Your task to perform on an android device: open device folders in google photos Image 0: 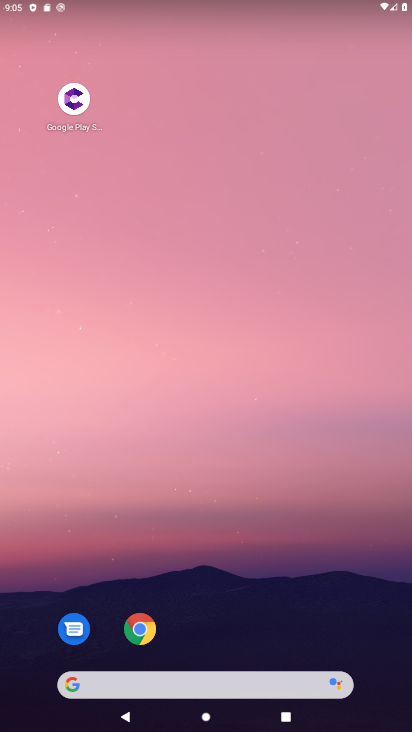
Step 0: drag from (203, 607) to (236, 110)
Your task to perform on an android device: open device folders in google photos Image 1: 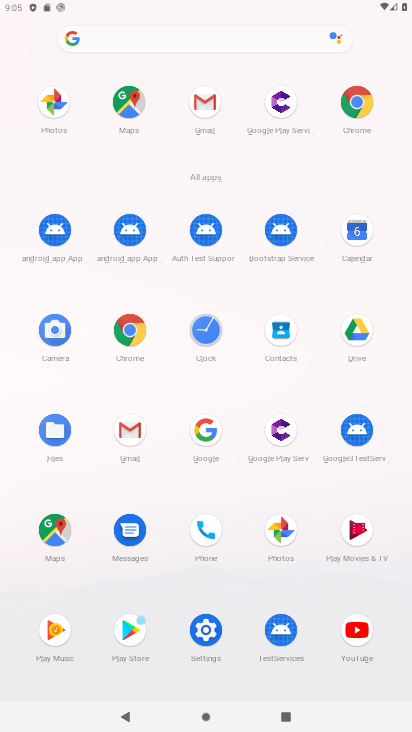
Step 1: click (282, 538)
Your task to perform on an android device: open device folders in google photos Image 2: 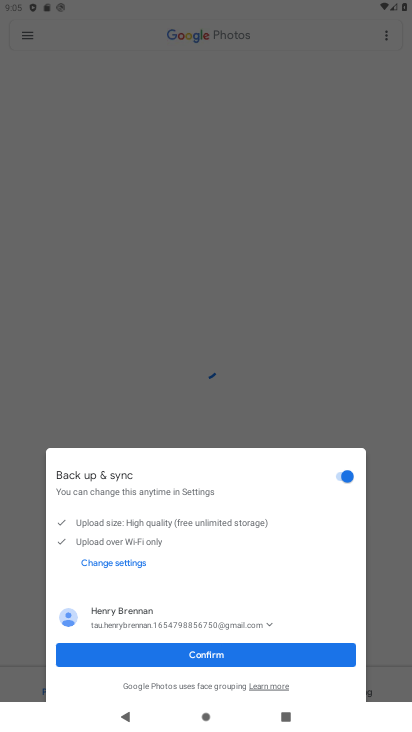
Step 2: click (217, 655)
Your task to perform on an android device: open device folders in google photos Image 3: 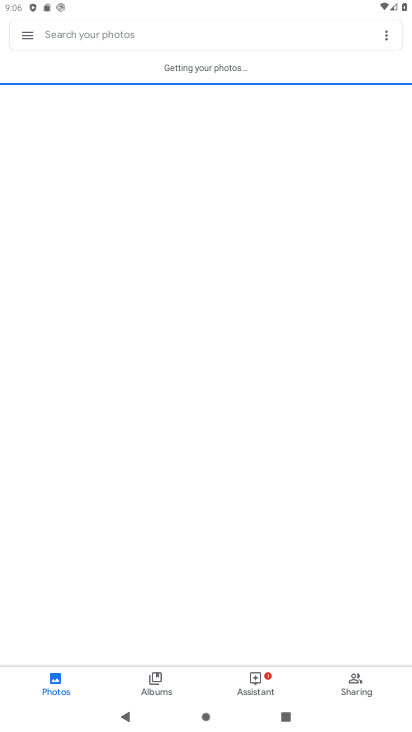
Step 3: click (25, 37)
Your task to perform on an android device: open device folders in google photos Image 4: 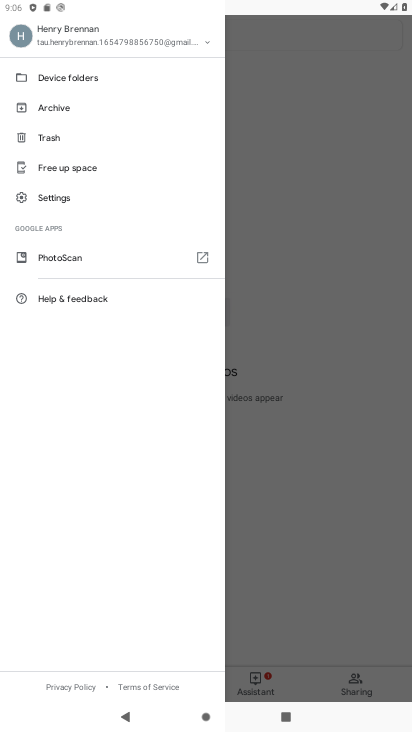
Step 4: click (62, 80)
Your task to perform on an android device: open device folders in google photos Image 5: 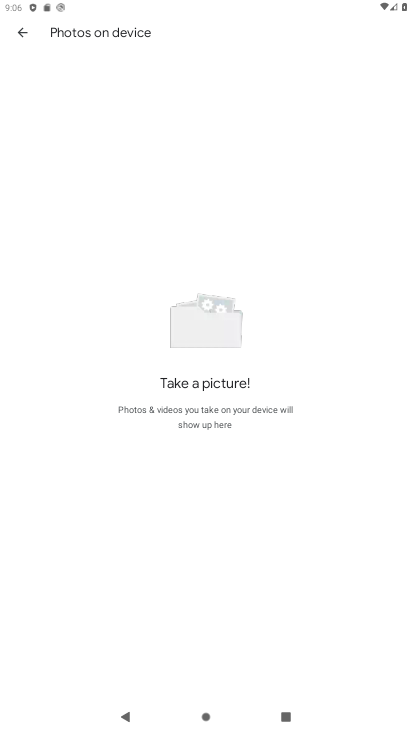
Step 5: task complete